Your task to perform on an android device: Clear all items from cart on walmart.com. Image 0: 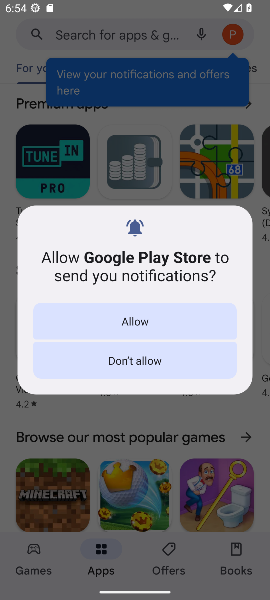
Step 0: press home button
Your task to perform on an android device: Clear all items from cart on walmart.com. Image 1: 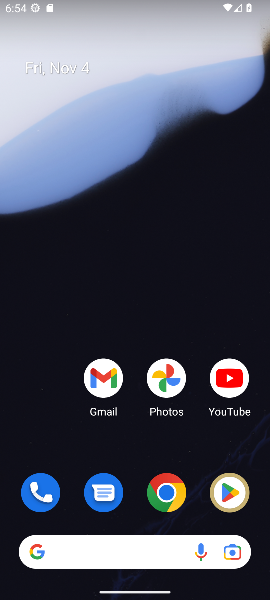
Step 1: drag from (143, 441) to (131, 40)
Your task to perform on an android device: Clear all items from cart on walmart.com. Image 2: 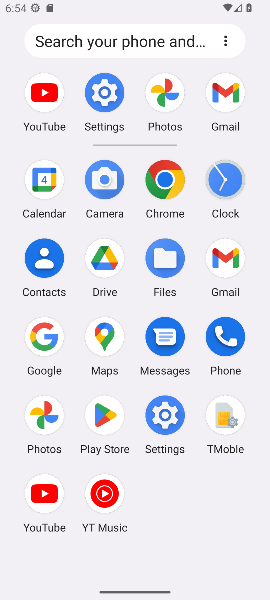
Step 2: click (165, 178)
Your task to perform on an android device: Clear all items from cart on walmart.com. Image 3: 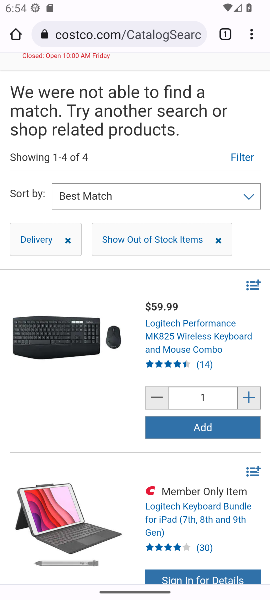
Step 3: click (137, 40)
Your task to perform on an android device: Clear all items from cart on walmart.com. Image 4: 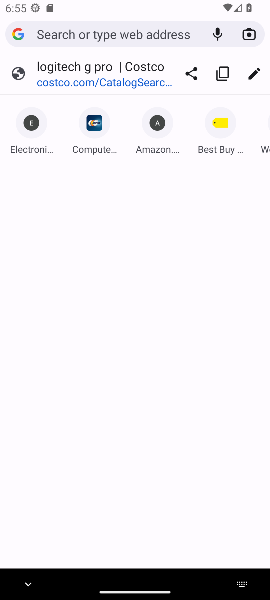
Step 4: type "walmart.com"
Your task to perform on an android device: Clear all items from cart on walmart.com. Image 5: 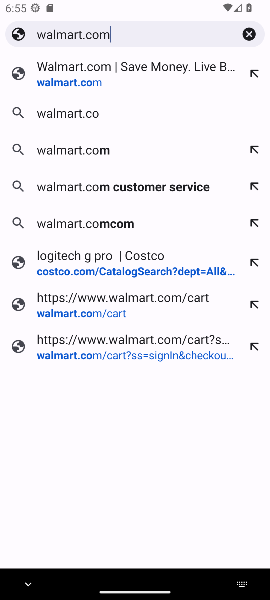
Step 5: press enter
Your task to perform on an android device: Clear all items from cart on walmart.com. Image 6: 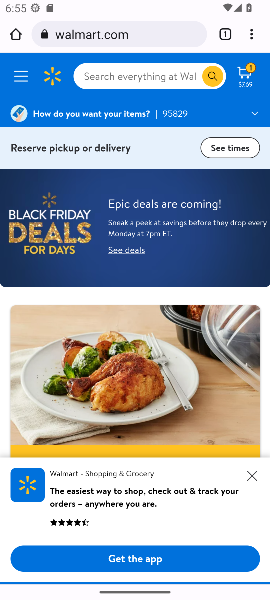
Step 6: click (241, 76)
Your task to perform on an android device: Clear all items from cart on walmart.com. Image 7: 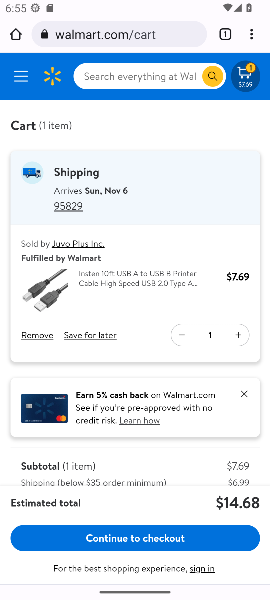
Step 7: click (33, 330)
Your task to perform on an android device: Clear all items from cart on walmart.com. Image 8: 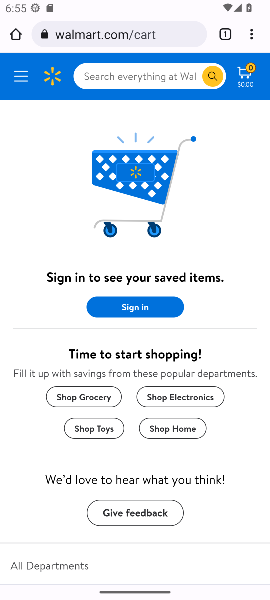
Step 8: task complete